Your task to perform on an android device: Search for "sony triple a" on costco, select the first entry, and add it to the cart. Image 0: 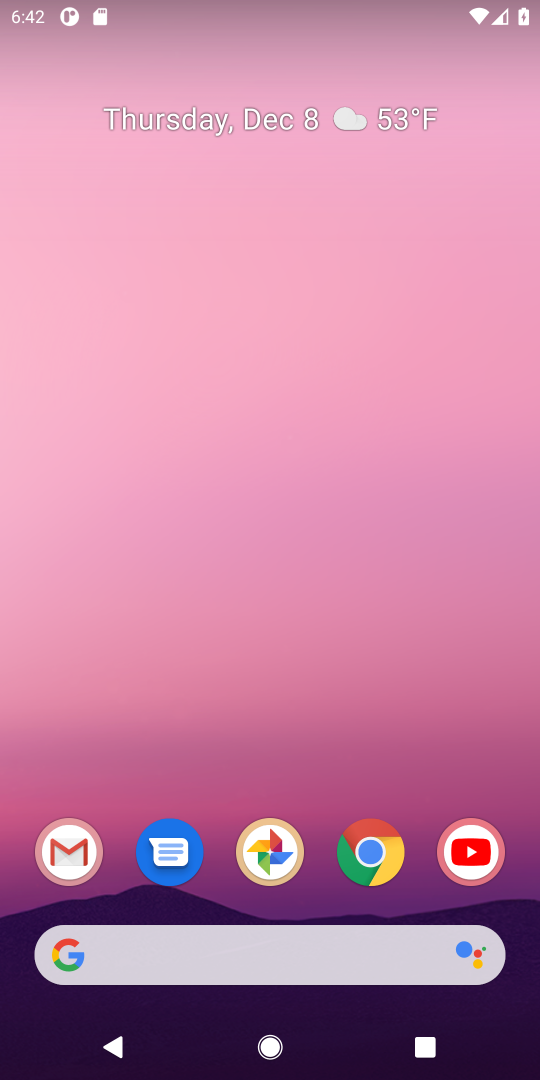
Step 0: click (342, 956)
Your task to perform on an android device: Search for "sony triple a" on costco, select the first entry, and add it to the cart. Image 1: 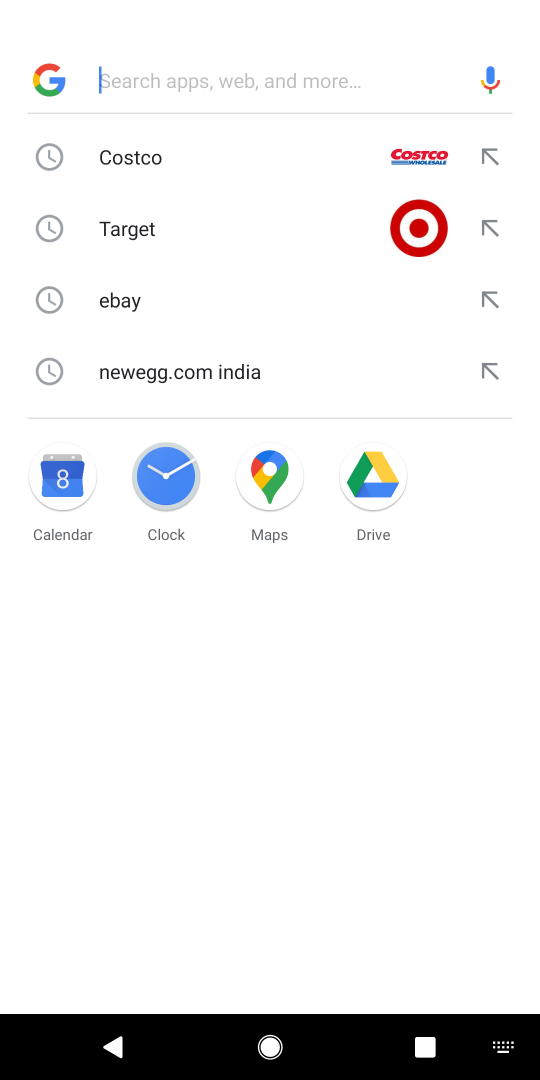
Step 1: click (246, 157)
Your task to perform on an android device: Search for "sony triple a" on costco, select the first entry, and add it to the cart. Image 2: 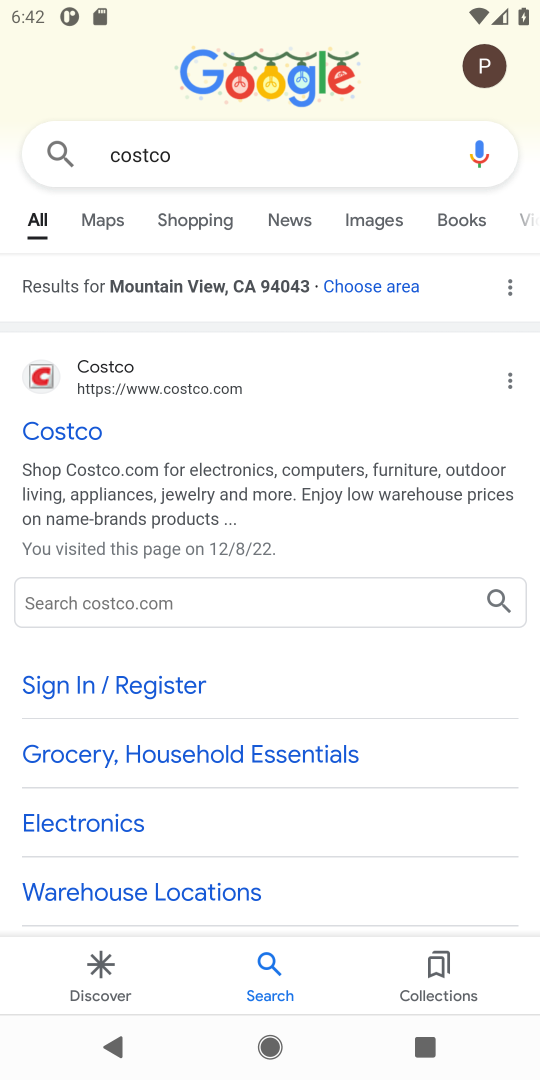
Step 2: click (51, 414)
Your task to perform on an android device: Search for "sony triple a" on costco, select the first entry, and add it to the cart. Image 3: 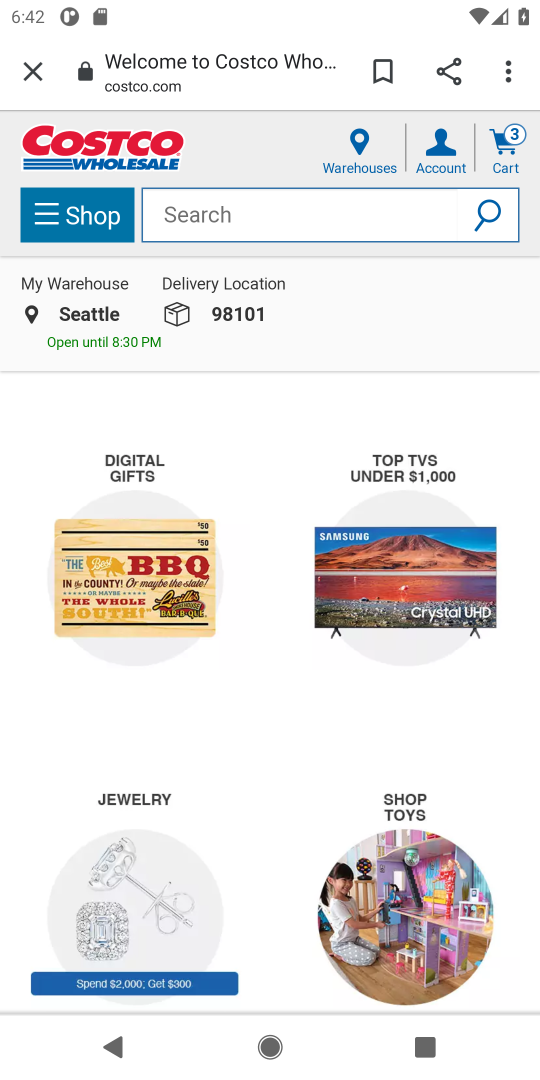
Step 3: click (167, 214)
Your task to perform on an android device: Search for "sony triple a" on costco, select the first entry, and add it to the cart. Image 4: 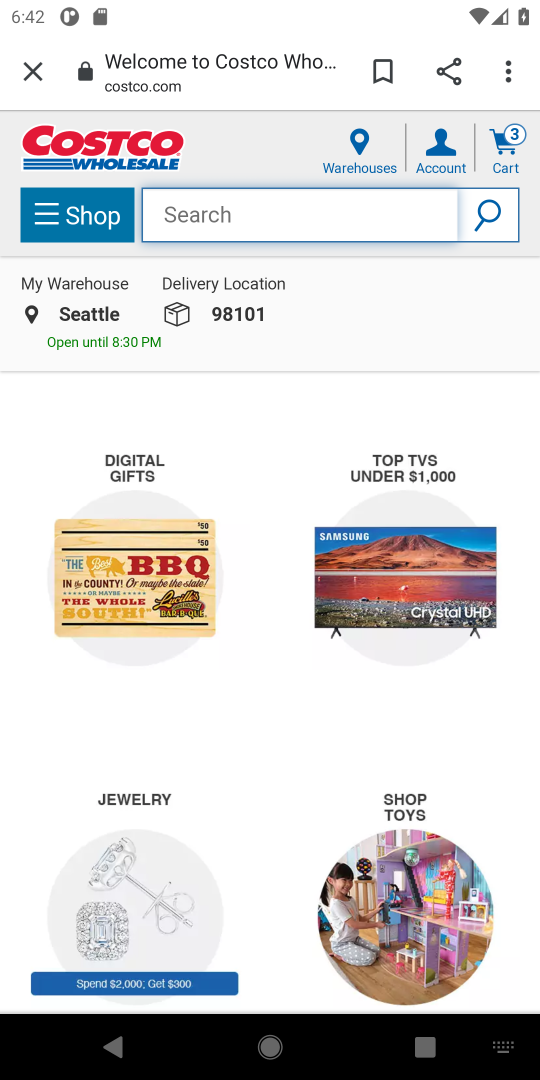
Step 4: type "sony triple"
Your task to perform on an android device: Search for "sony triple a" on costco, select the first entry, and add it to the cart. Image 5: 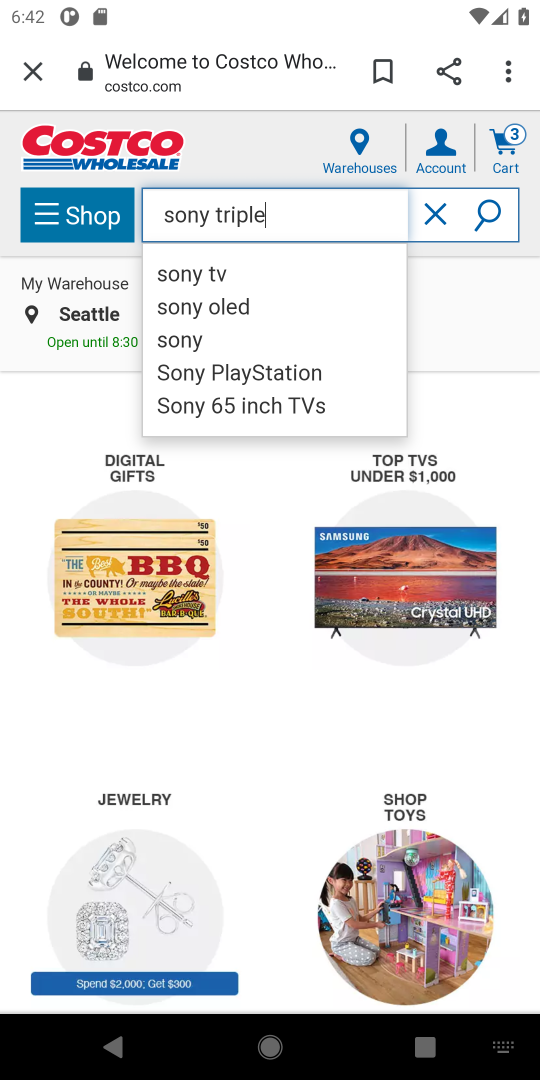
Step 5: click (491, 215)
Your task to perform on an android device: Search for "sony triple a" on costco, select the first entry, and add it to the cart. Image 6: 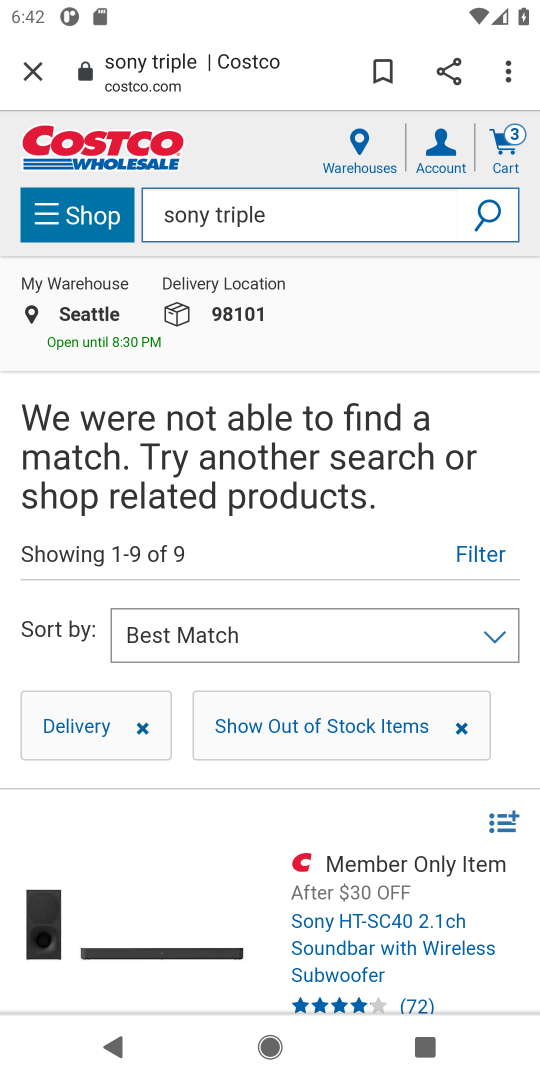
Step 6: drag from (252, 921) to (167, 436)
Your task to perform on an android device: Search for "sony triple a" on costco, select the first entry, and add it to the cart. Image 7: 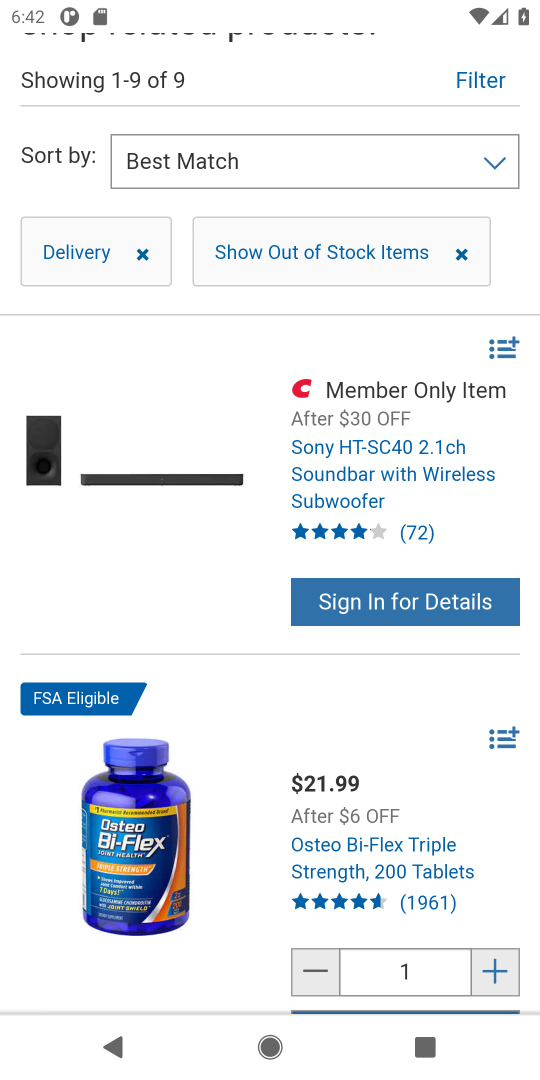
Step 7: click (402, 591)
Your task to perform on an android device: Search for "sony triple a" on costco, select the first entry, and add it to the cart. Image 8: 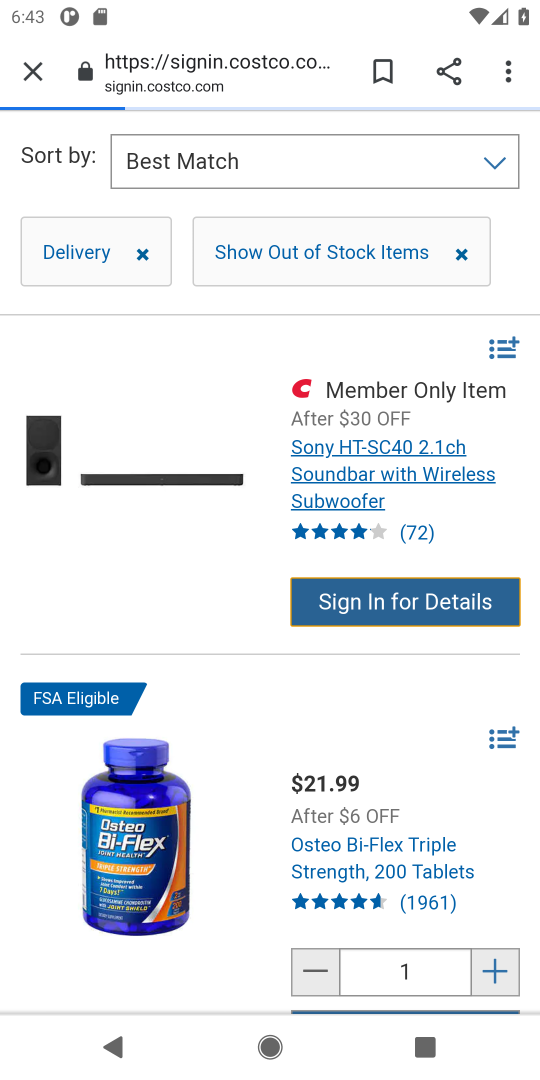
Step 8: task complete